Your task to perform on an android device: all mails in gmail Image 0: 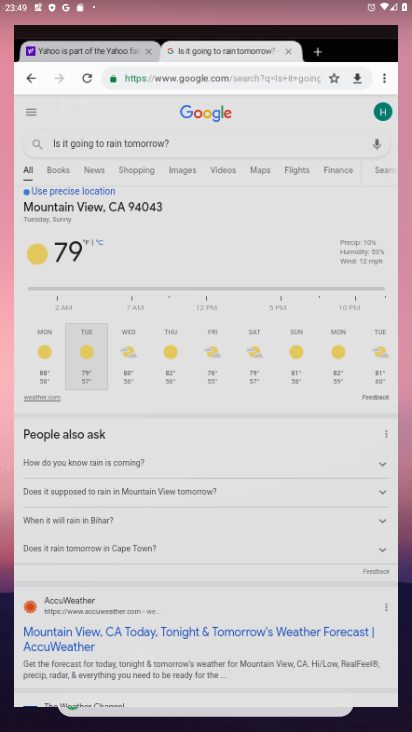
Step 0: press home button
Your task to perform on an android device: all mails in gmail Image 1: 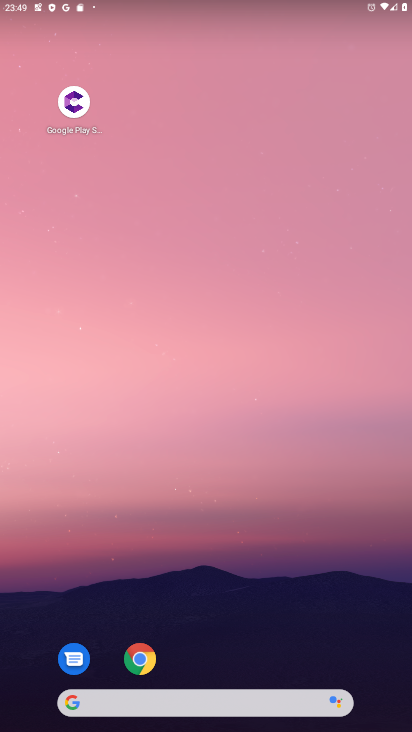
Step 1: drag from (283, 595) to (241, 129)
Your task to perform on an android device: all mails in gmail Image 2: 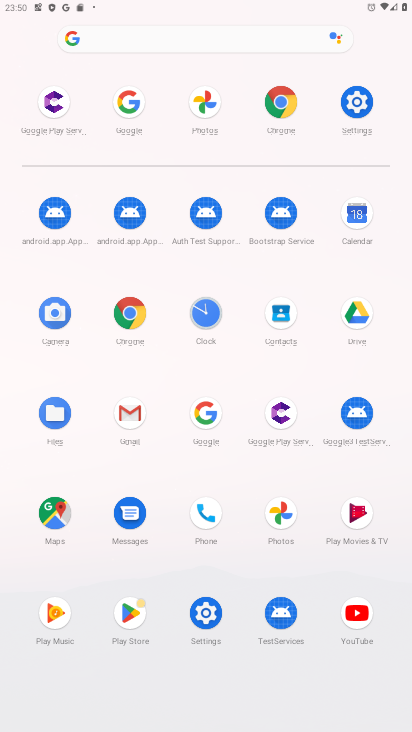
Step 2: click (132, 406)
Your task to perform on an android device: all mails in gmail Image 3: 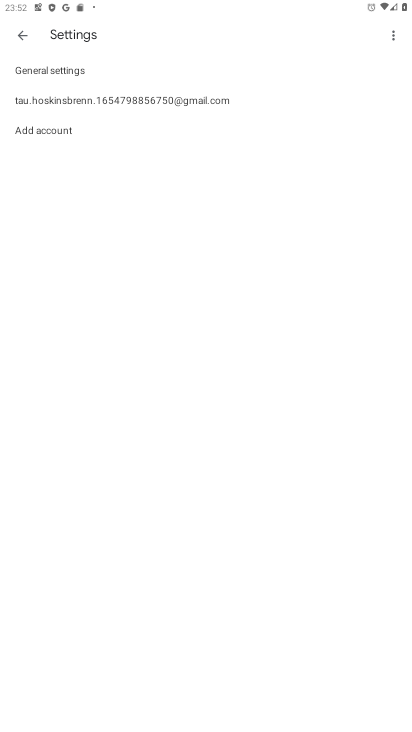
Step 3: click (76, 91)
Your task to perform on an android device: all mails in gmail Image 4: 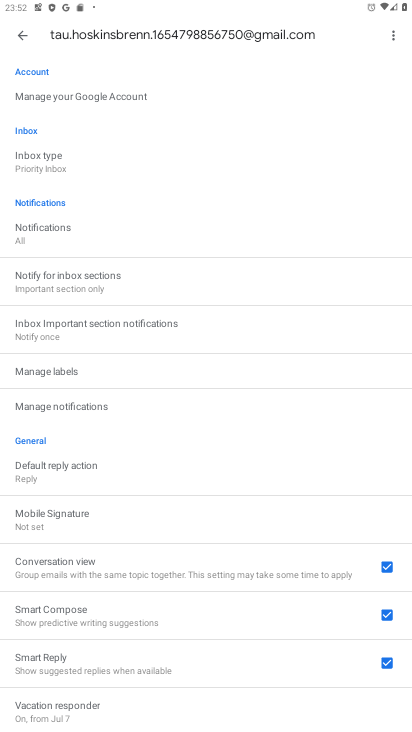
Step 4: click (28, 43)
Your task to perform on an android device: all mails in gmail Image 5: 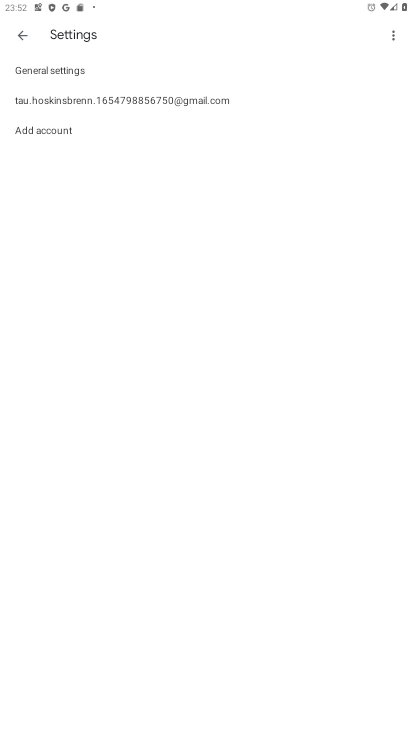
Step 5: click (28, 43)
Your task to perform on an android device: all mails in gmail Image 6: 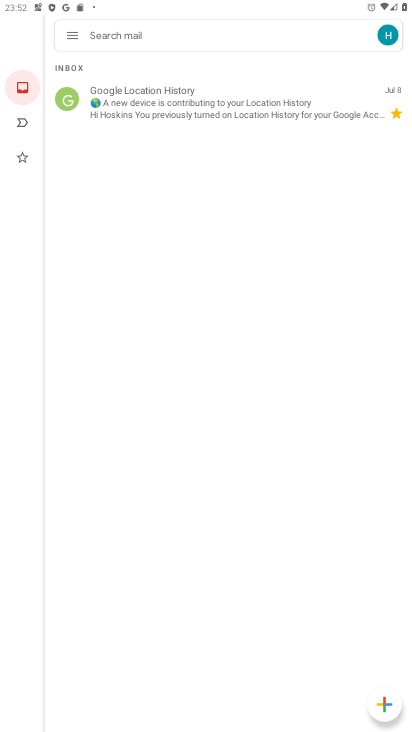
Step 6: click (65, 40)
Your task to perform on an android device: all mails in gmail Image 7: 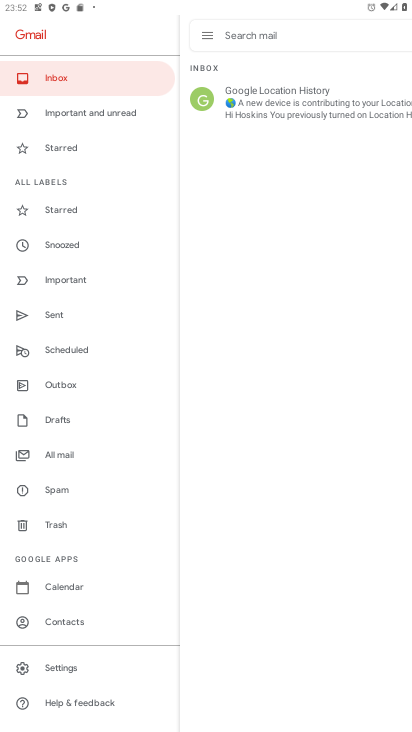
Step 7: click (46, 458)
Your task to perform on an android device: all mails in gmail Image 8: 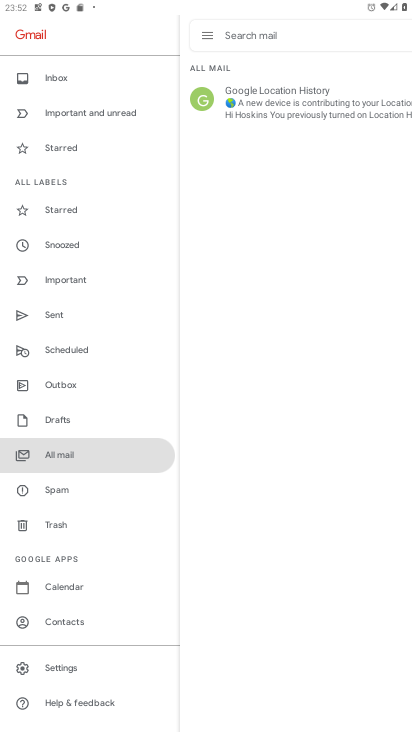
Step 8: task complete